Your task to perform on an android device: turn on wifi Image 0: 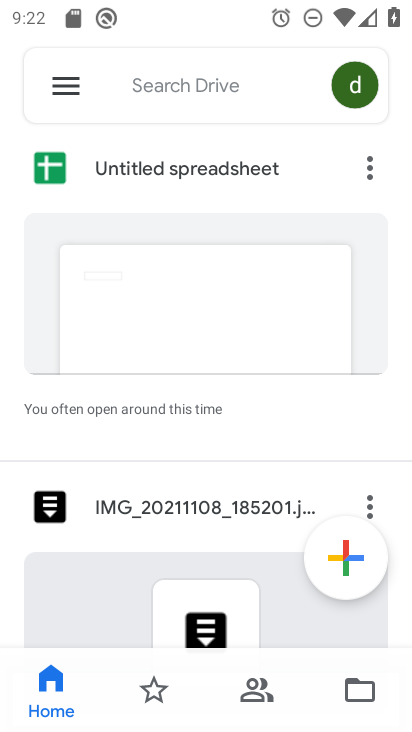
Step 0: press home button
Your task to perform on an android device: turn on wifi Image 1: 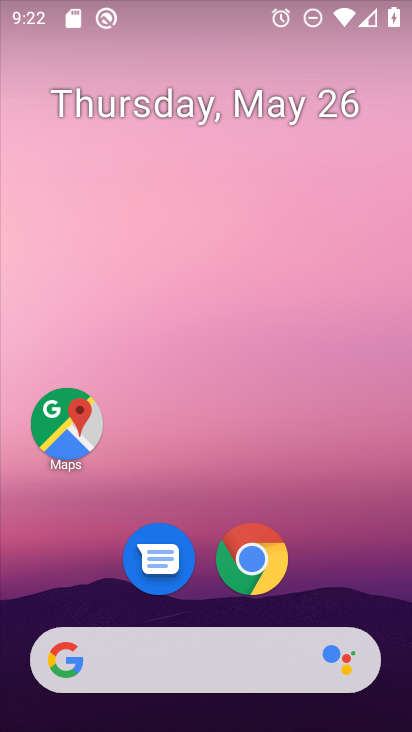
Step 1: drag from (339, 579) to (294, 45)
Your task to perform on an android device: turn on wifi Image 2: 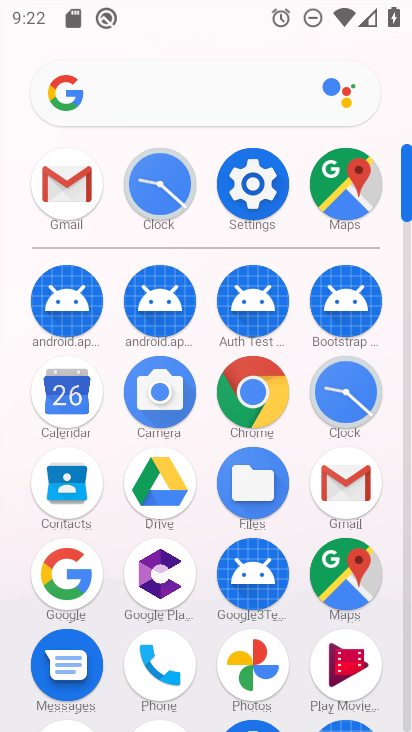
Step 2: click (252, 177)
Your task to perform on an android device: turn on wifi Image 3: 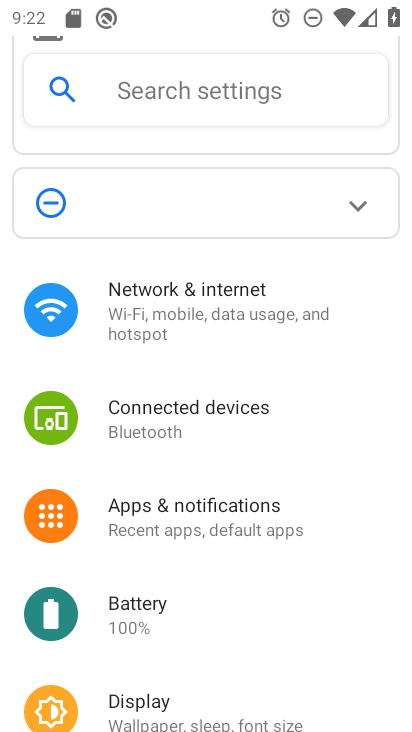
Step 3: click (187, 309)
Your task to perform on an android device: turn on wifi Image 4: 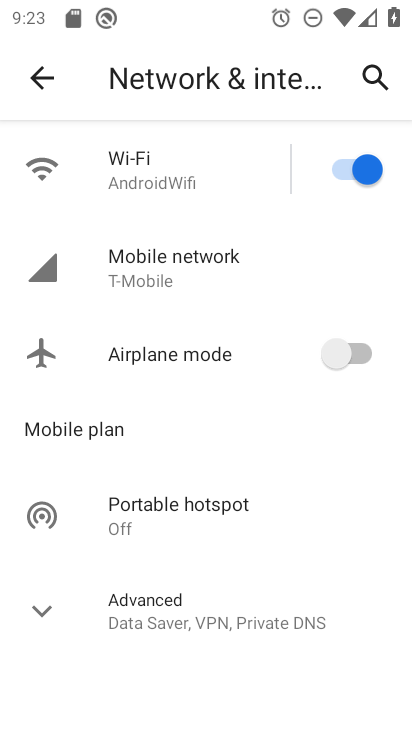
Step 4: task complete